Your task to perform on an android device: Set the phone to "Do not disturb". Image 0: 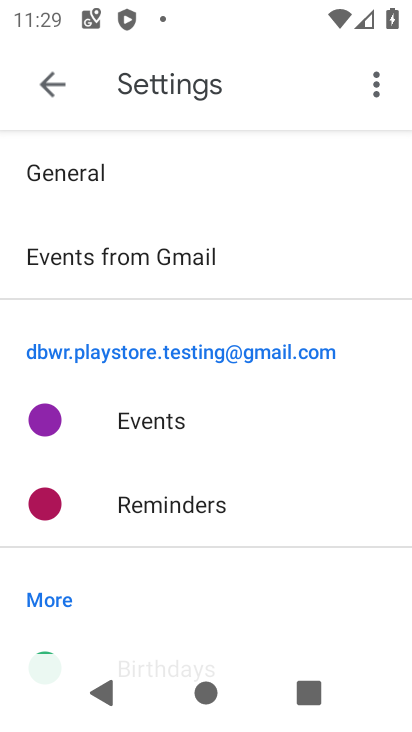
Step 0: press home button
Your task to perform on an android device: Set the phone to "Do not disturb". Image 1: 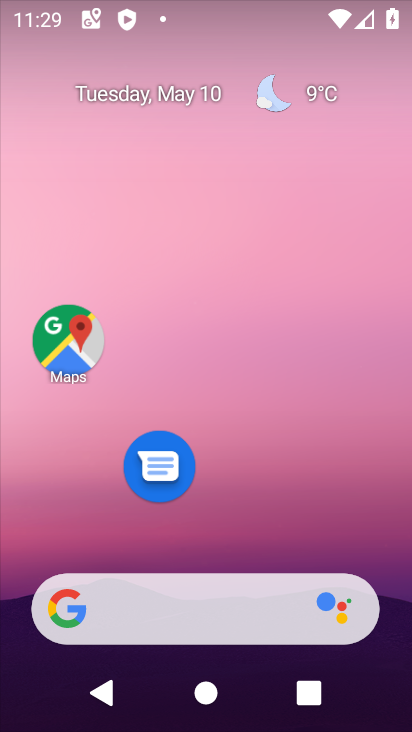
Step 1: drag from (271, 528) to (232, 105)
Your task to perform on an android device: Set the phone to "Do not disturb". Image 2: 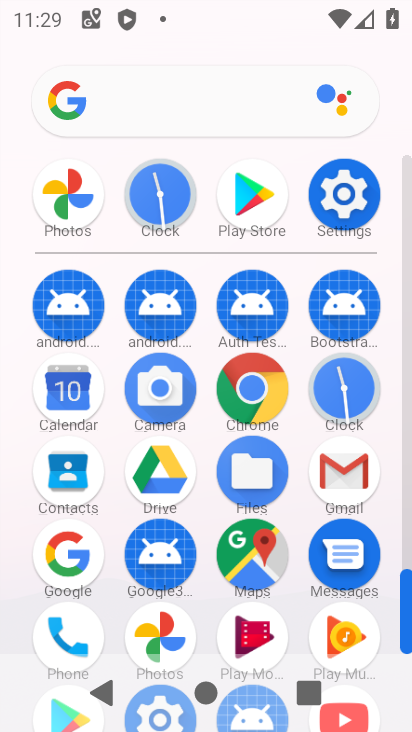
Step 2: click (345, 179)
Your task to perform on an android device: Set the phone to "Do not disturb". Image 3: 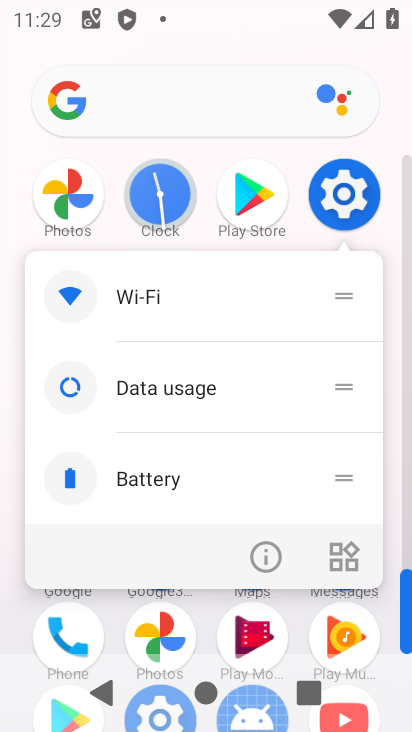
Step 3: click (349, 181)
Your task to perform on an android device: Set the phone to "Do not disturb". Image 4: 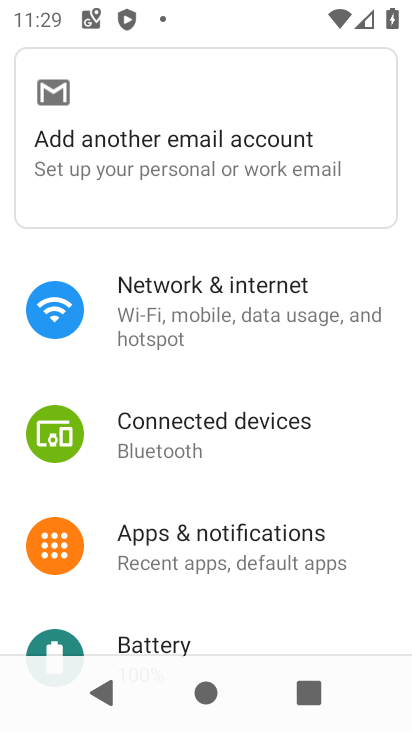
Step 4: drag from (254, 515) to (243, 469)
Your task to perform on an android device: Set the phone to "Do not disturb". Image 5: 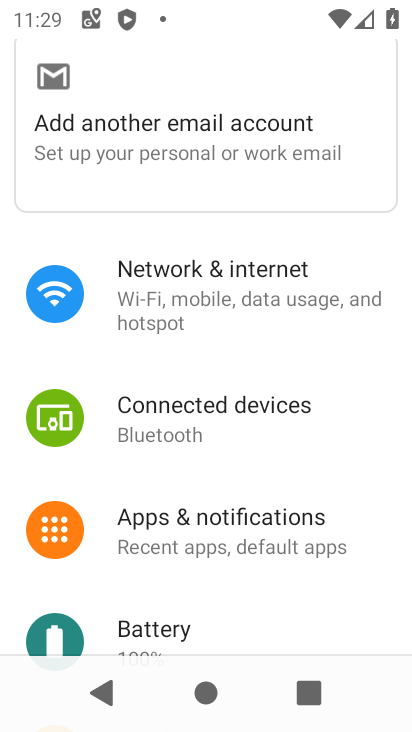
Step 5: drag from (266, 550) to (248, 469)
Your task to perform on an android device: Set the phone to "Do not disturb". Image 6: 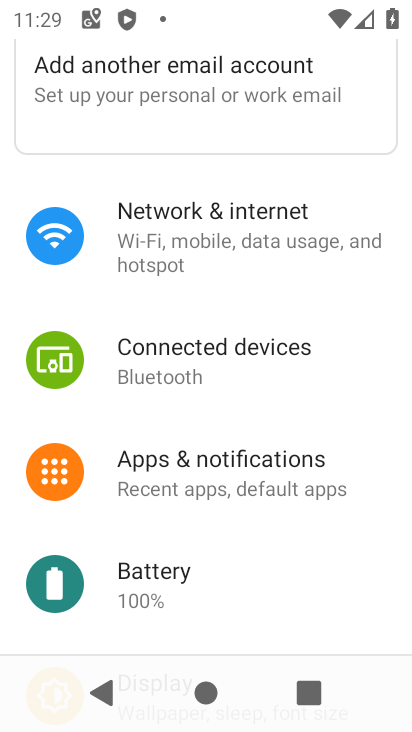
Step 6: drag from (264, 533) to (243, 435)
Your task to perform on an android device: Set the phone to "Do not disturb". Image 7: 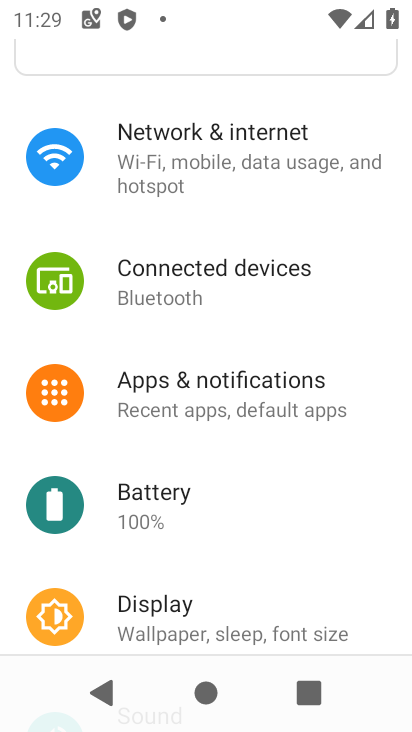
Step 7: drag from (250, 550) to (195, 454)
Your task to perform on an android device: Set the phone to "Do not disturb". Image 8: 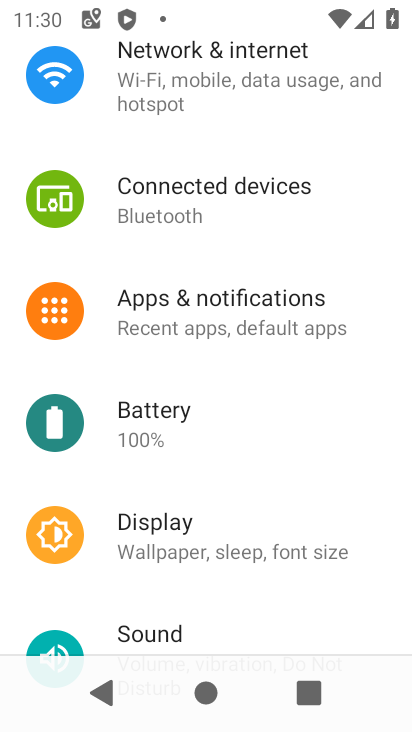
Step 8: drag from (239, 541) to (219, 431)
Your task to perform on an android device: Set the phone to "Do not disturb". Image 9: 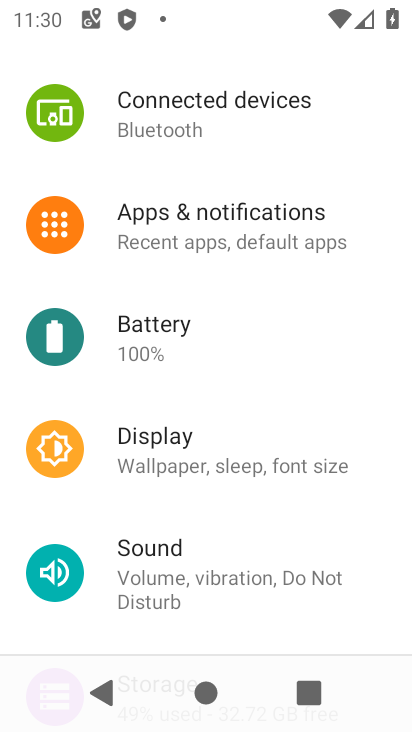
Step 9: click (230, 573)
Your task to perform on an android device: Set the phone to "Do not disturb". Image 10: 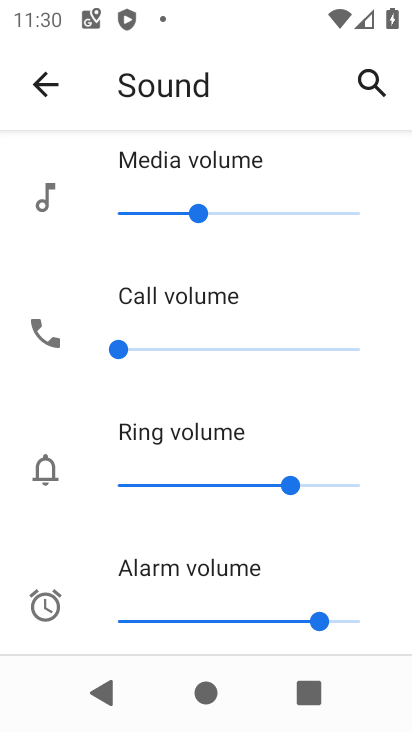
Step 10: drag from (228, 559) to (218, 364)
Your task to perform on an android device: Set the phone to "Do not disturb". Image 11: 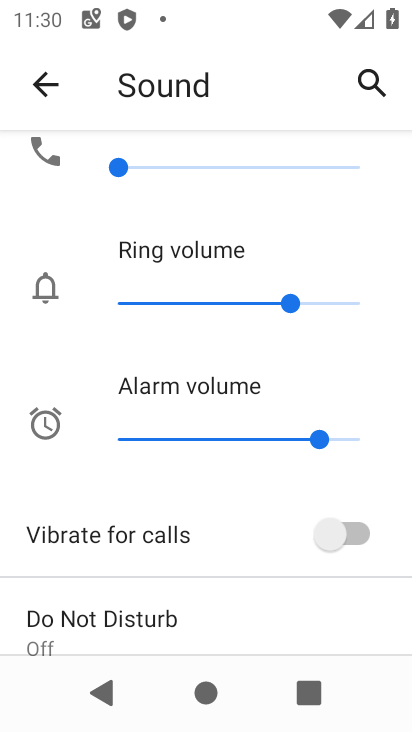
Step 11: drag from (208, 465) to (207, 404)
Your task to perform on an android device: Set the phone to "Do not disturb". Image 12: 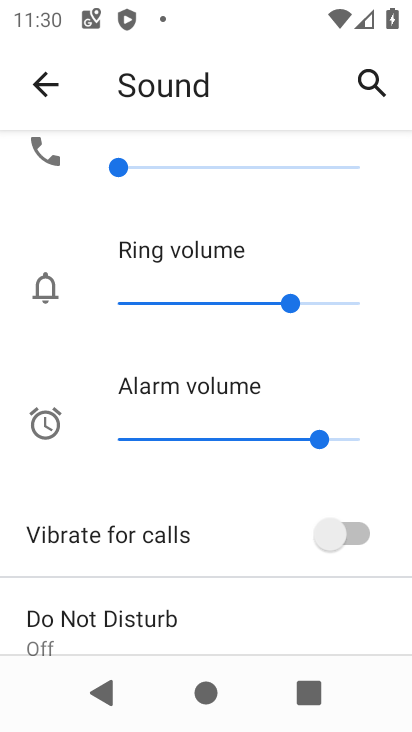
Step 12: drag from (208, 578) to (190, 305)
Your task to perform on an android device: Set the phone to "Do not disturb". Image 13: 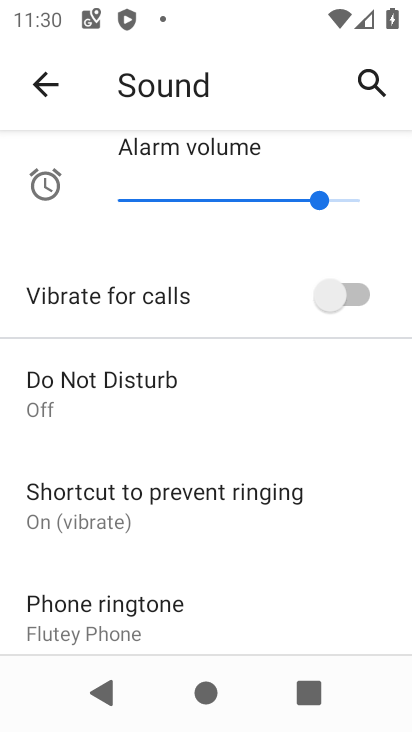
Step 13: click (148, 377)
Your task to perform on an android device: Set the phone to "Do not disturb". Image 14: 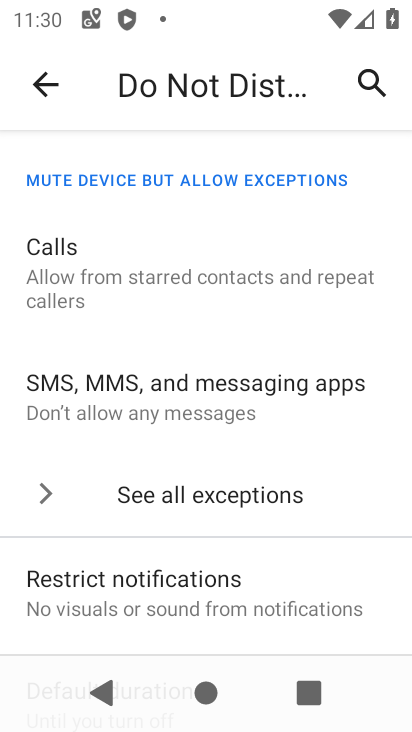
Step 14: drag from (217, 558) to (176, 368)
Your task to perform on an android device: Set the phone to "Do not disturb". Image 15: 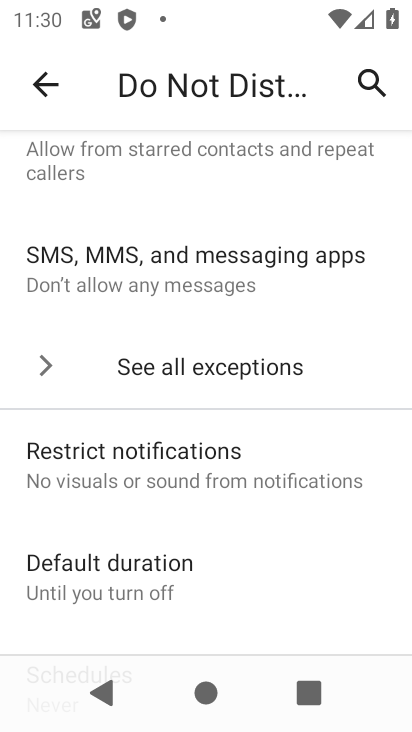
Step 15: drag from (149, 507) to (132, 357)
Your task to perform on an android device: Set the phone to "Do not disturb". Image 16: 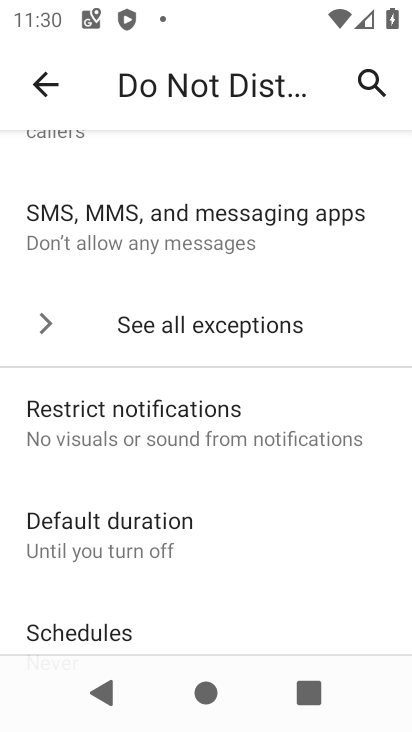
Step 16: drag from (175, 553) to (168, 377)
Your task to perform on an android device: Set the phone to "Do not disturb". Image 17: 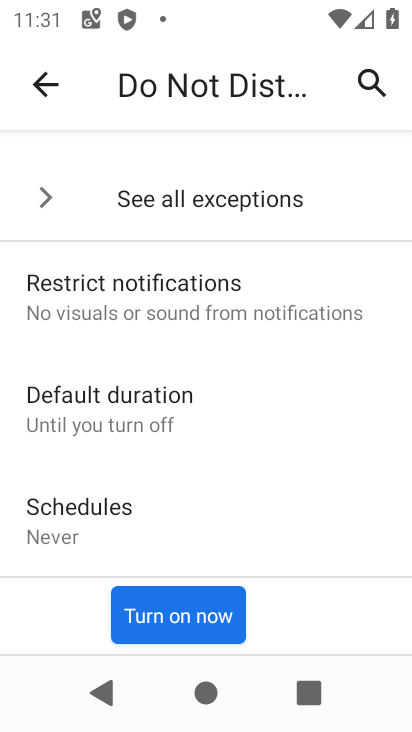
Step 17: click (196, 600)
Your task to perform on an android device: Set the phone to "Do not disturb". Image 18: 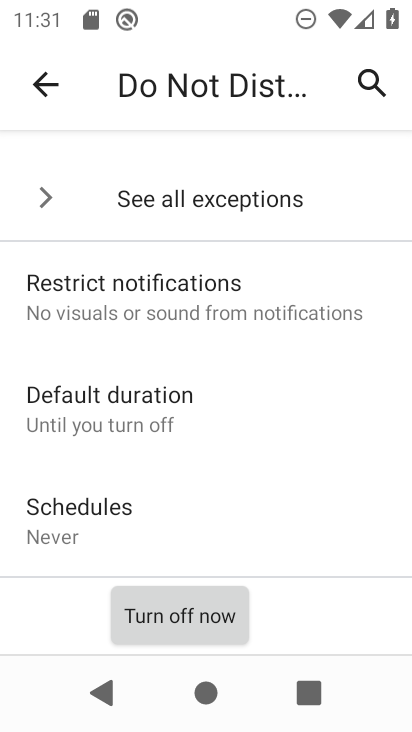
Step 18: task complete